Your task to perform on an android device: Go to internet settings Image 0: 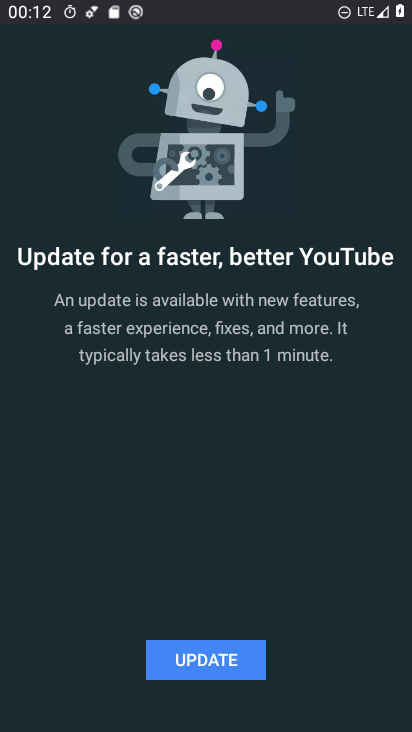
Step 0: press home button
Your task to perform on an android device: Go to internet settings Image 1: 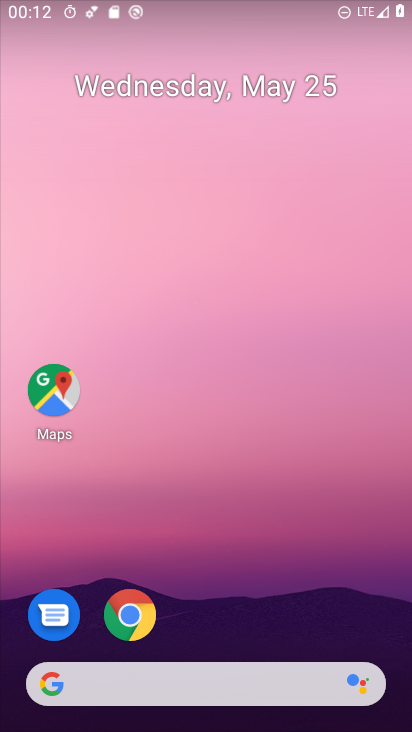
Step 1: drag from (264, 699) to (317, 107)
Your task to perform on an android device: Go to internet settings Image 2: 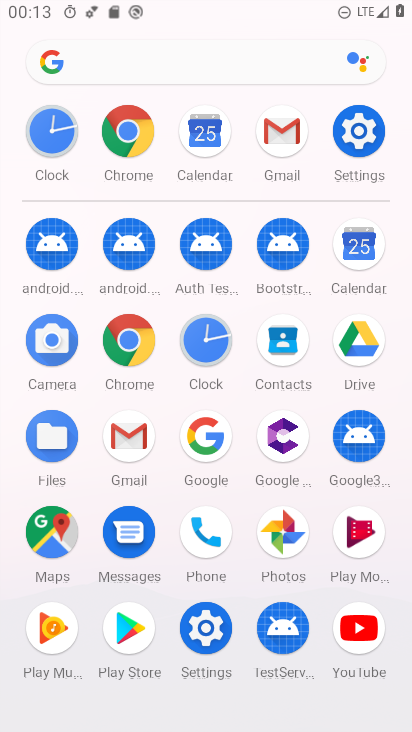
Step 2: click (352, 142)
Your task to perform on an android device: Go to internet settings Image 3: 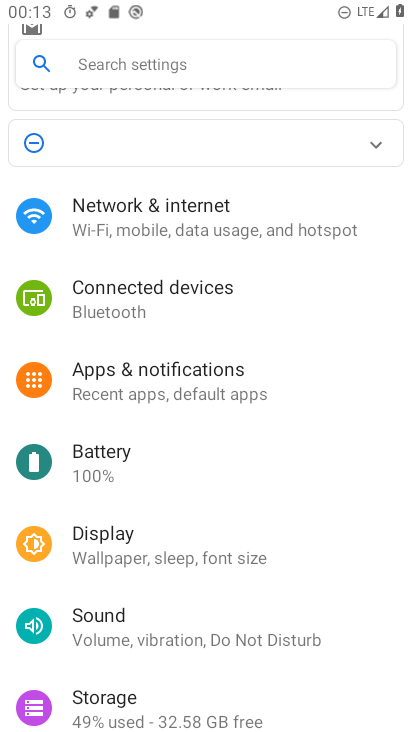
Step 3: click (155, 234)
Your task to perform on an android device: Go to internet settings Image 4: 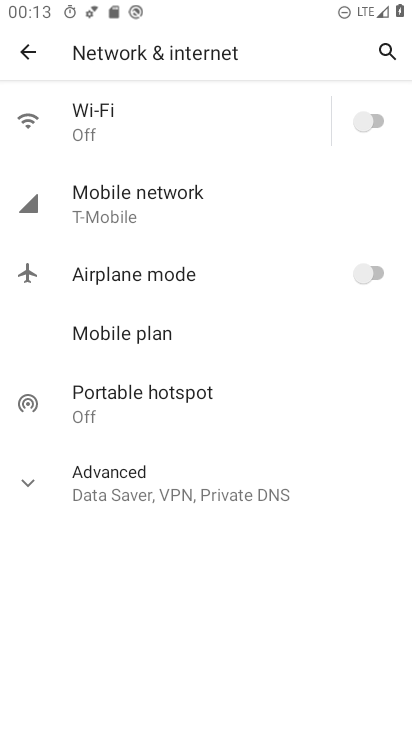
Step 4: task complete